Your task to perform on an android device: add a label to a message in the gmail app Image 0: 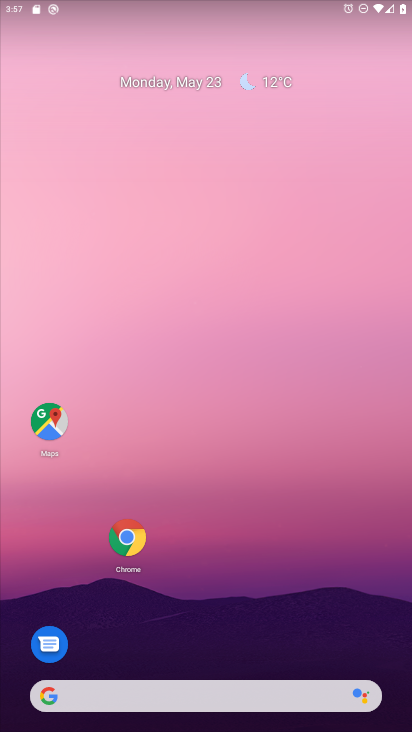
Step 0: drag from (328, 615) to (274, 104)
Your task to perform on an android device: add a label to a message in the gmail app Image 1: 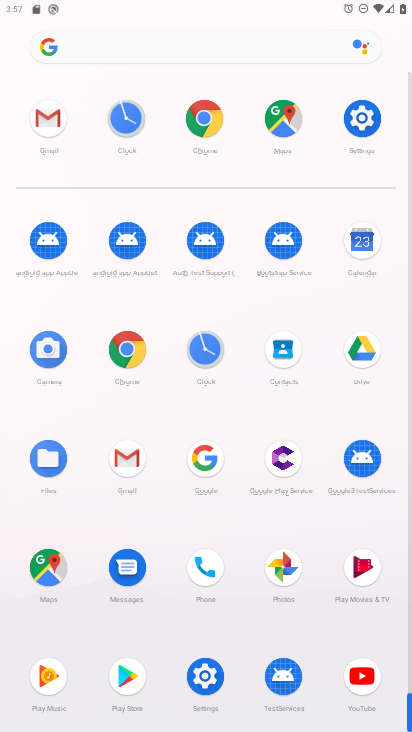
Step 1: click (54, 114)
Your task to perform on an android device: add a label to a message in the gmail app Image 2: 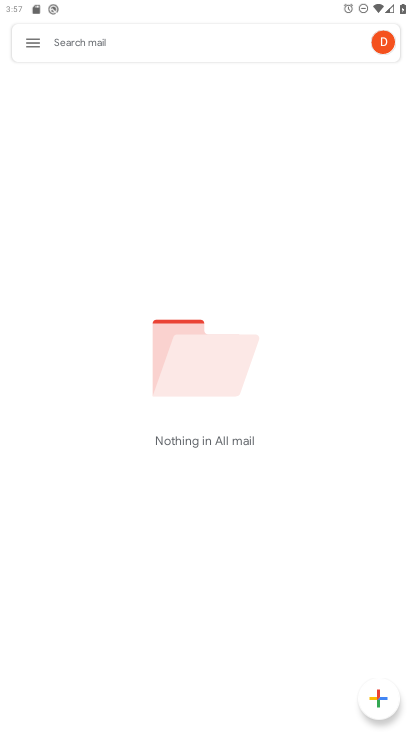
Step 2: task complete